Your task to perform on an android device: Open Yahoo.com Image 0: 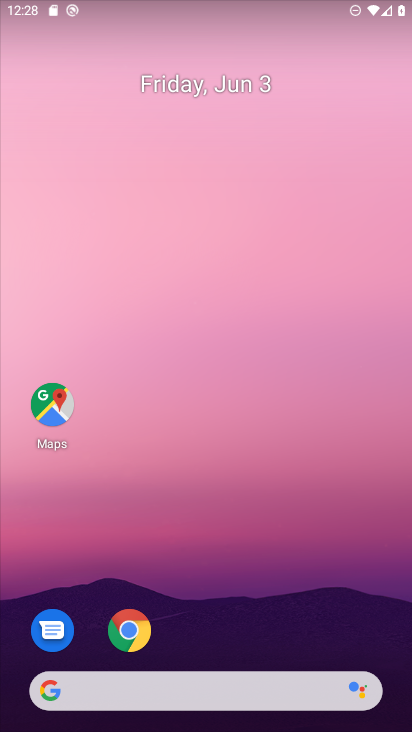
Step 0: drag from (226, 660) to (187, 139)
Your task to perform on an android device: Open Yahoo.com Image 1: 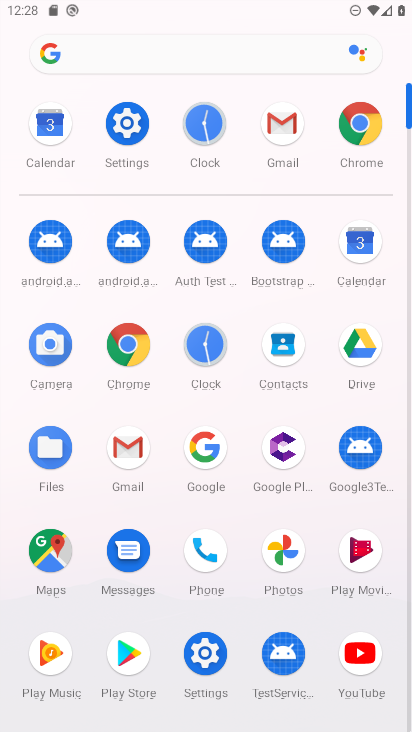
Step 1: click (354, 140)
Your task to perform on an android device: Open Yahoo.com Image 2: 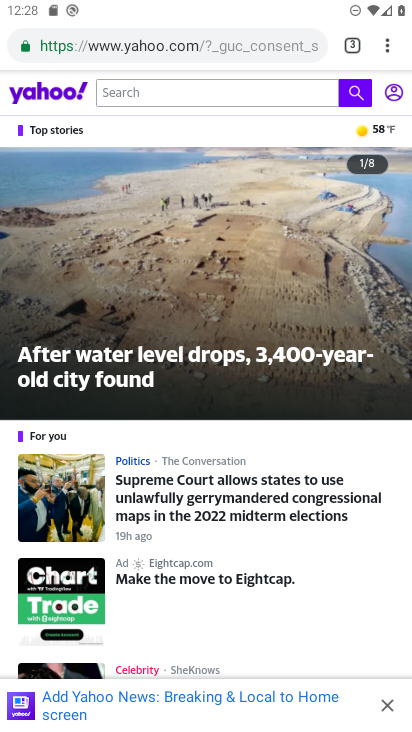
Step 2: task complete